Your task to perform on an android device: turn off data saver in the chrome app Image 0: 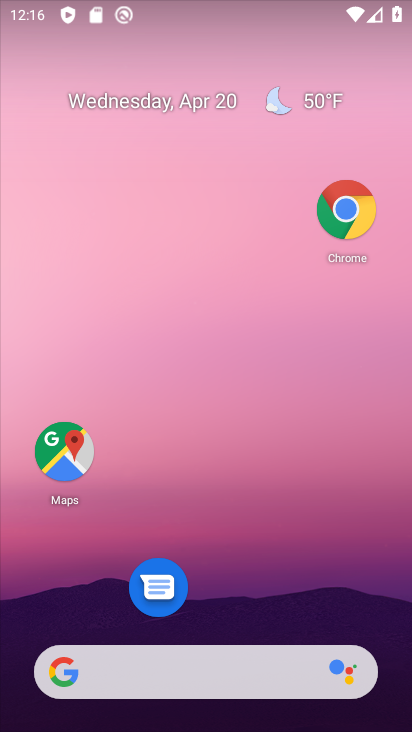
Step 0: click (346, 221)
Your task to perform on an android device: turn off data saver in the chrome app Image 1: 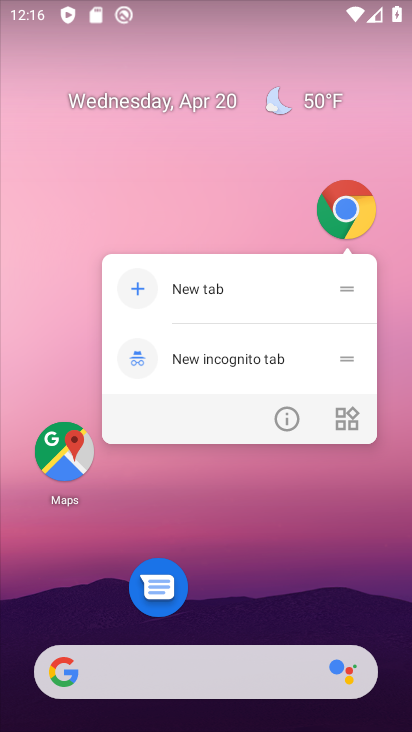
Step 1: click (344, 226)
Your task to perform on an android device: turn off data saver in the chrome app Image 2: 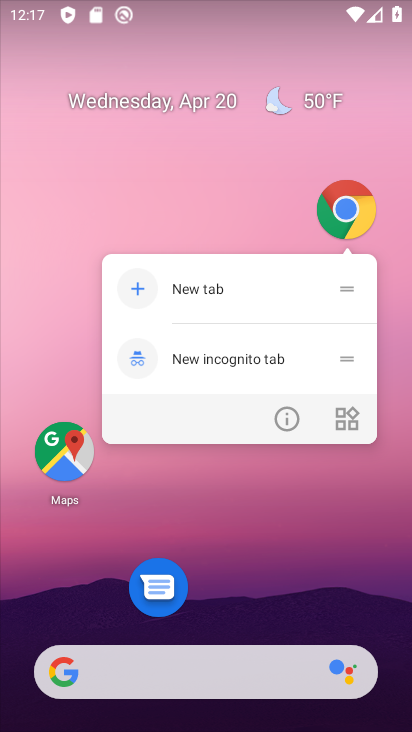
Step 2: click (339, 204)
Your task to perform on an android device: turn off data saver in the chrome app Image 3: 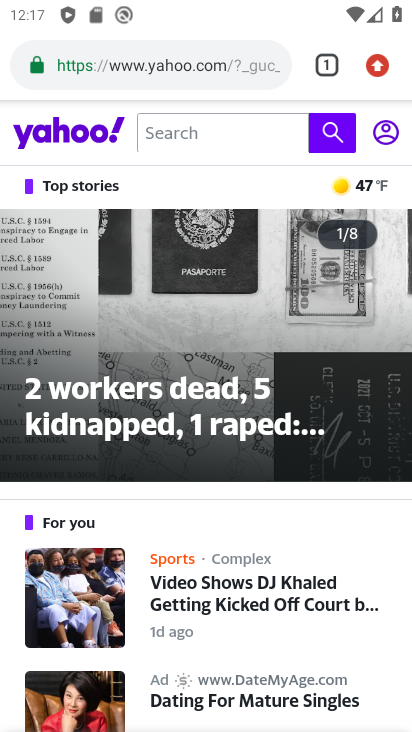
Step 3: click (377, 73)
Your task to perform on an android device: turn off data saver in the chrome app Image 4: 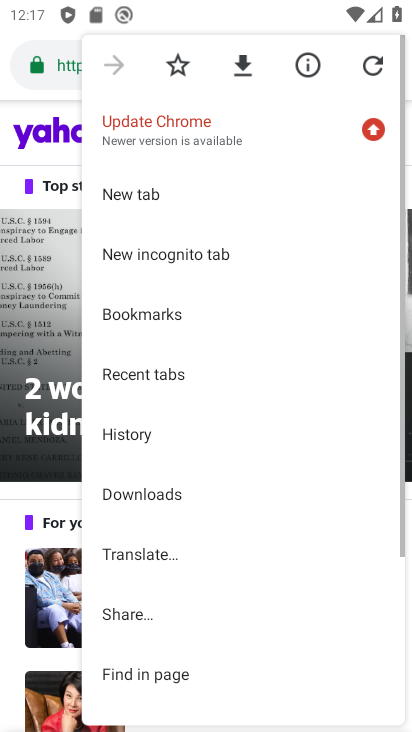
Step 4: drag from (154, 621) to (224, 191)
Your task to perform on an android device: turn off data saver in the chrome app Image 5: 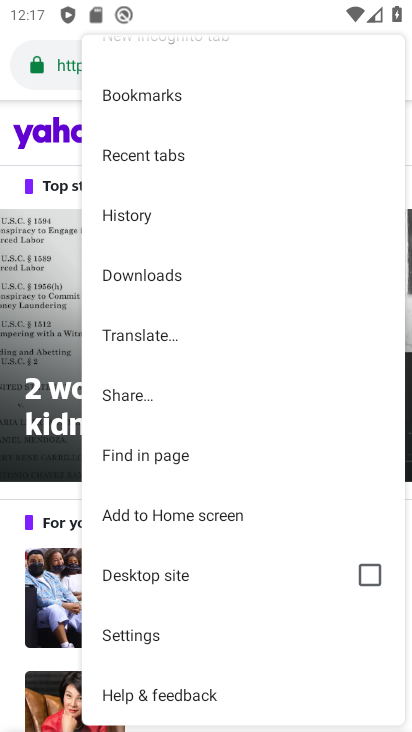
Step 5: click (148, 630)
Your task to perform on an android device: turn off data saver in the chrome app Image 6: 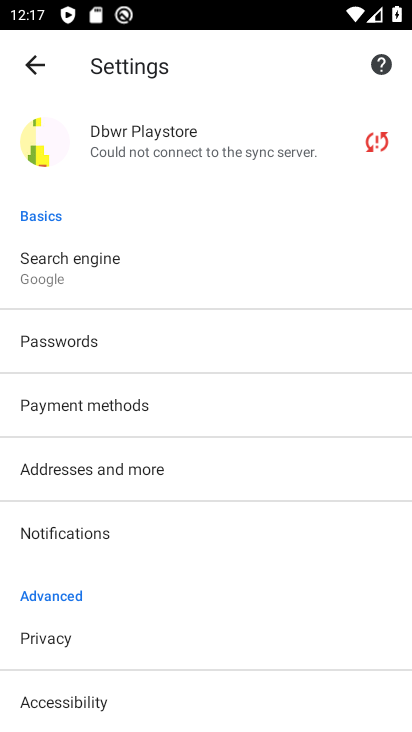
Step 6: drag from (85, 594) to (101, 381)
Your task to perform on an android device: turn off data saver in the chrome app Image 7: 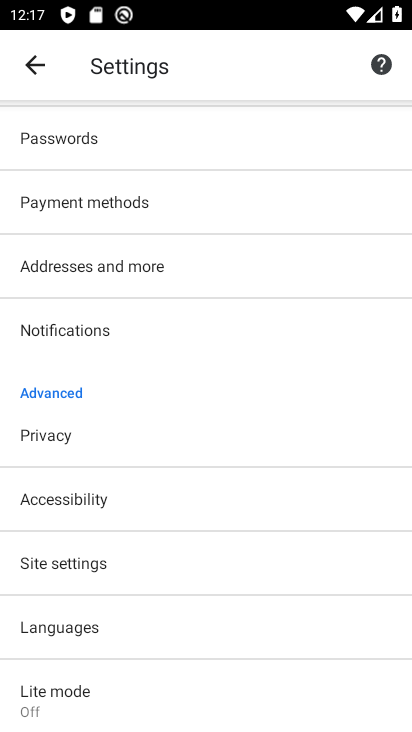
Step 7: click (50, 684)
Your task to perform on an android device: turn off data saver in the chrome app Image 8: 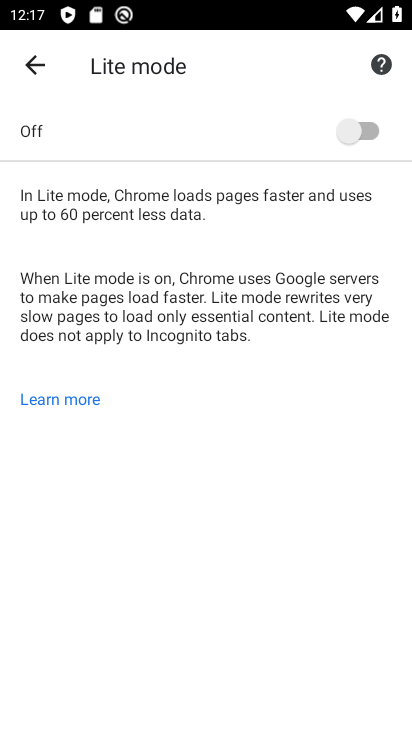
Step 8: task complete